Your task to perform on an android device: visit the assistant section in the google photos Image 0: 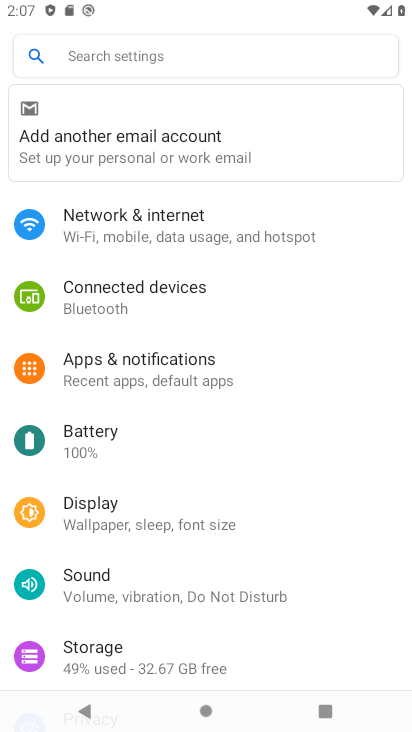
Step 0: press home button
Your task to perform on an android device: visit the assistant section in the google photos Image 1: 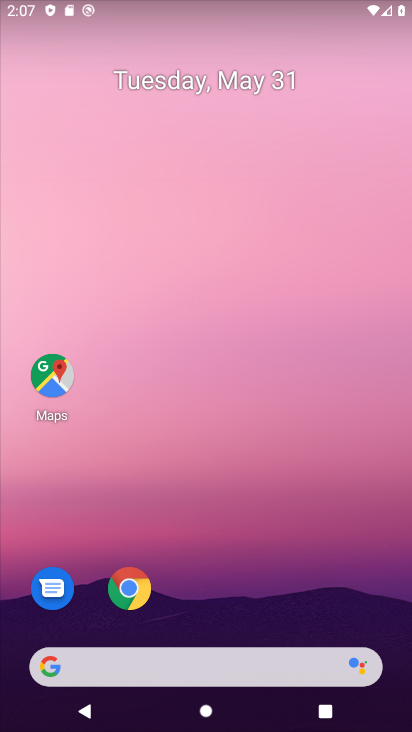
Step 1: drag from (161, 730) to (207, 41)
Your task to perform on an android device: visit the assistant section in the google photos Image 2: 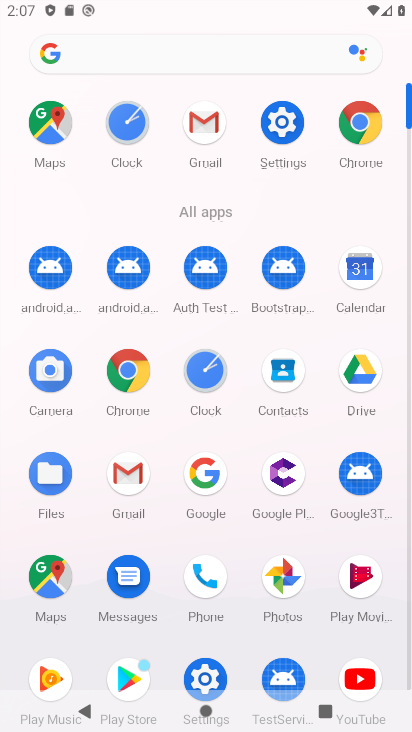
Step 2: click (272, 576)
Your task to perform on an android device: visit the assistant section in the google photos Image 3: 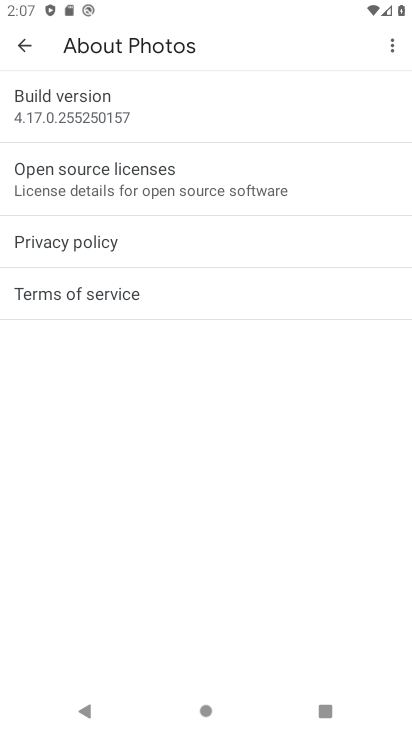
Step 3: click (30, 44)
Your task to perform on an android device: visit the assistant section in the google photos Image 4: 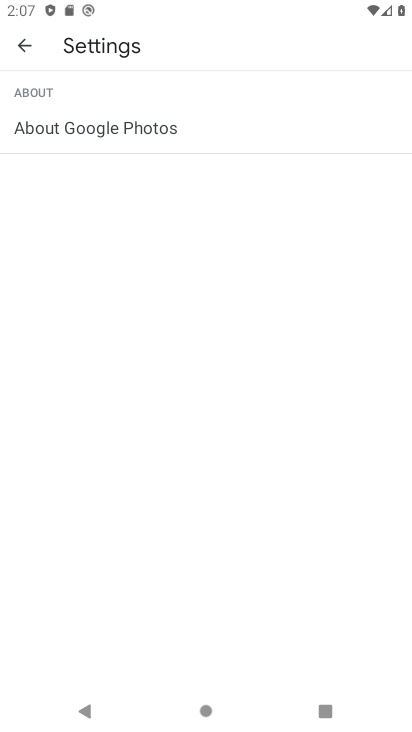
Step 4: click (19, 50)
Your task to perform on an android device: visit the assistant section in the google photos Image 5: 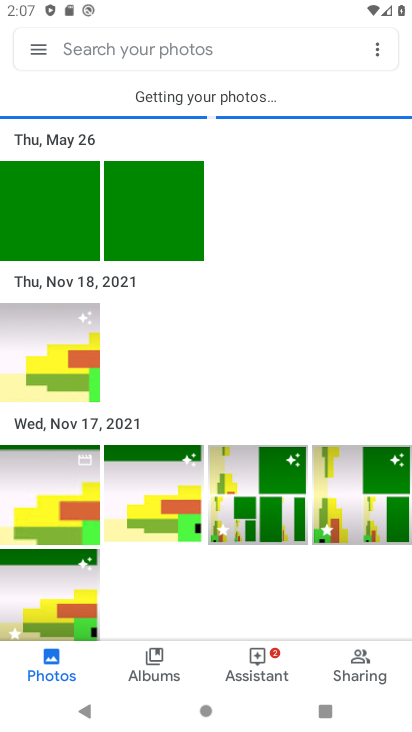
Step 5: click (252, 674)
Your task to perform on an android device: visit the assistant section in the google photos Image 6: 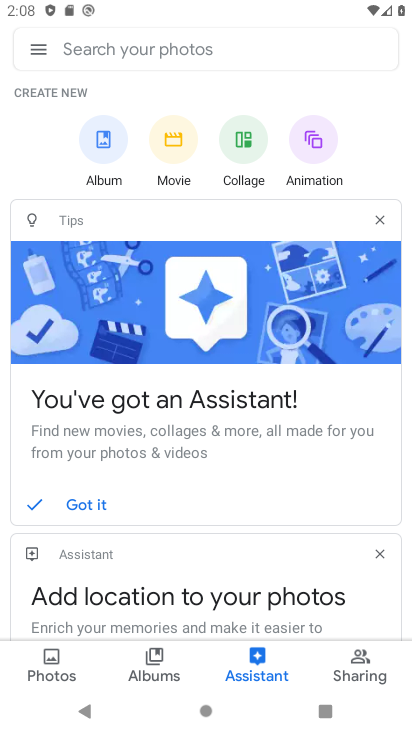
Step 6: task complete